Your task to perform on an android device: Go to network settings Image 0: 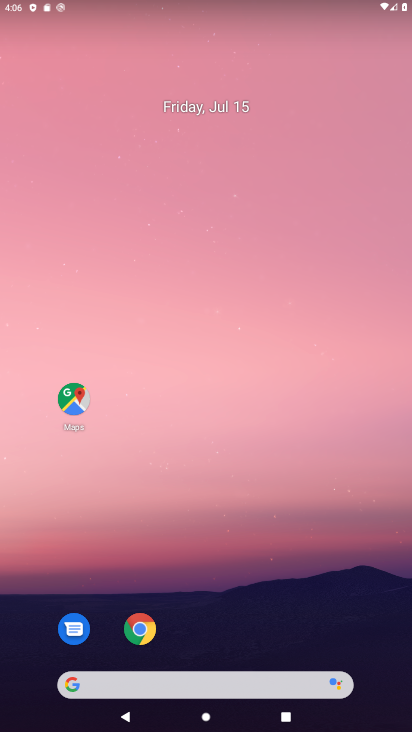
Step 0: press home button
Your task to perform on an android device: Go to network settings Image 1: 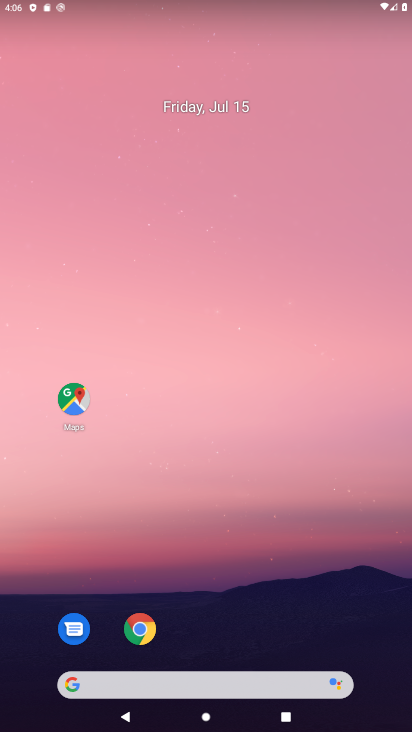
Step 1: drag from (184, 628) to (189, 108)
Your task to perform on an android device: Go to network settings Image 2: 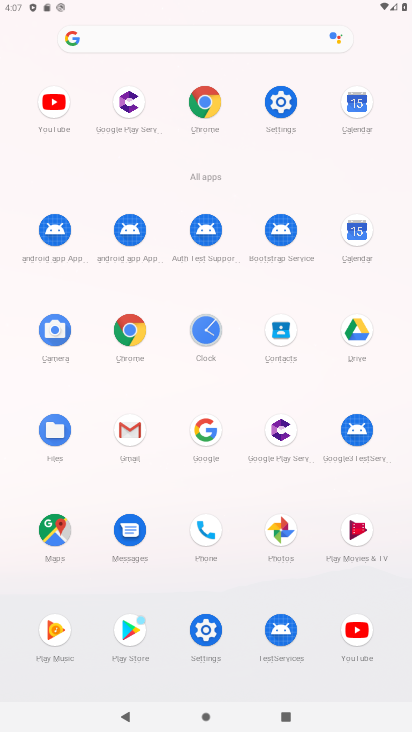
Step 2: click (281, 125)
Your task to perform on an android device: Go to network settings Image 3: 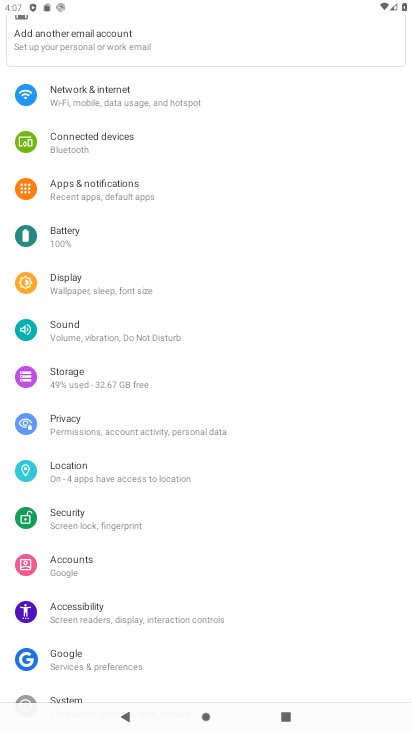
Step 3: click (118, 99)
Your task to perform on an android device: Go to network settings Image 4: 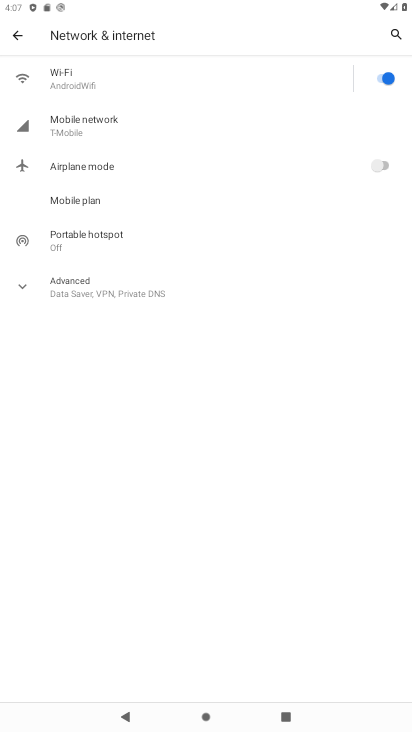
Step 4: task complete